Your task to perform on an android device: change the clock display to analog Image 0: 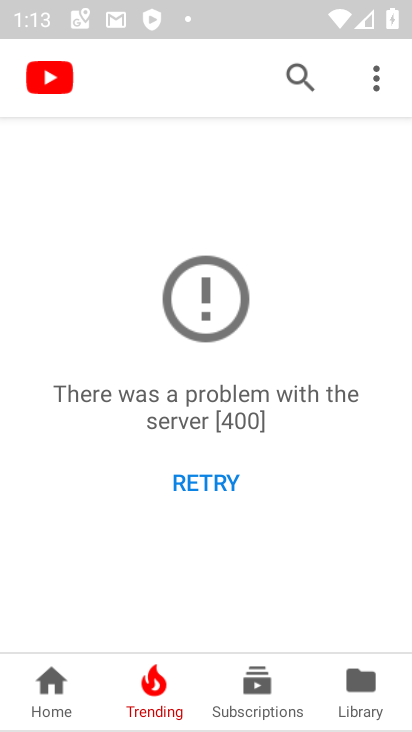
Step 0: press home button
Your task to perform on an android device: change the clock display to analog Image 1: 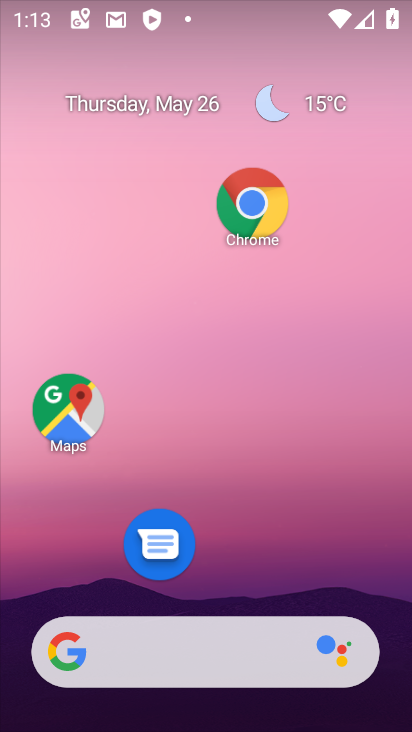
Step 1: drag from (167, 710) to (177, 217)
Your task to perform on an android device: change the clock display to analog Image 2: 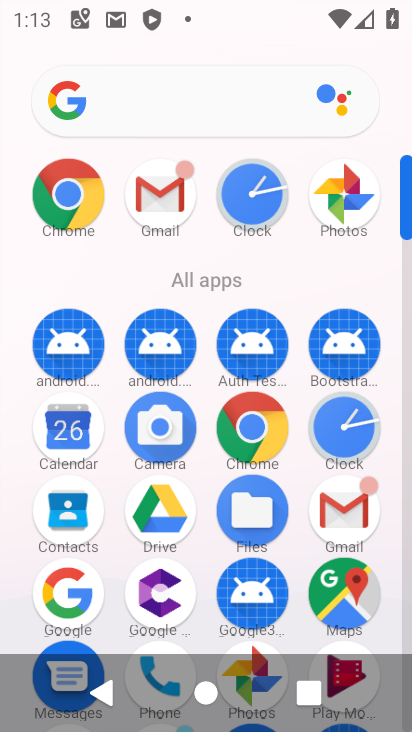
Step 2: click (246, 213)
Your task to perform on an android device: change the clock display to analog Image 3: 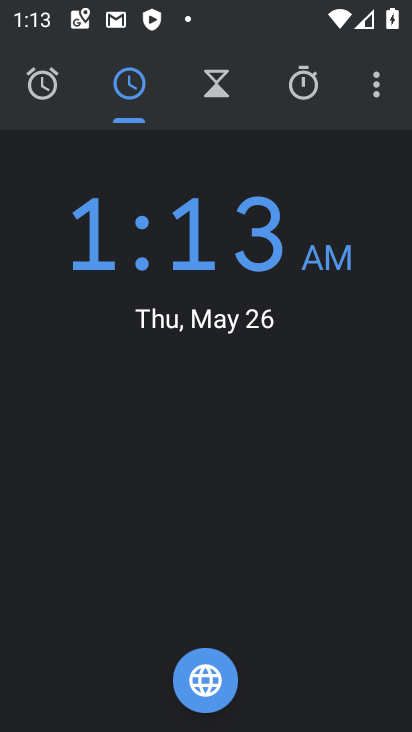
Step 3: click (367, 76)
Your task to perform on an android device: change the clock display to analog Image 4: 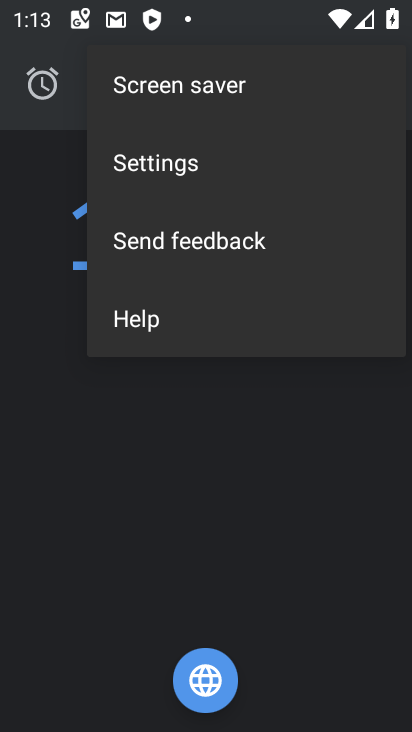
Step 4: click (170, 164)
Your task to perform on an android device: change the clock display to analog Image 5: 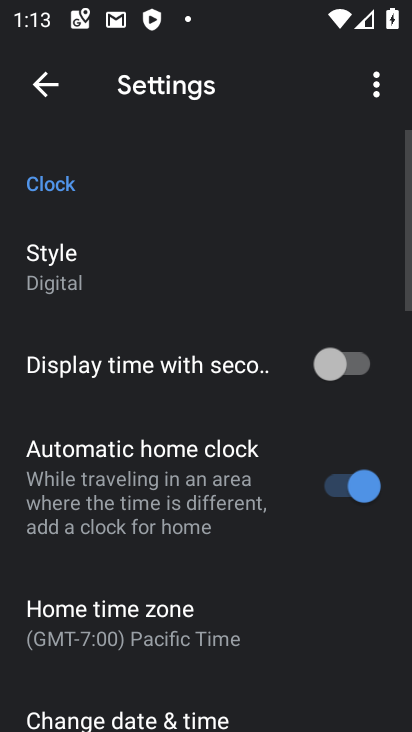
Step 5: click (81, 283)
Your task to perform on an android device: change the clock display to analog Image 6: 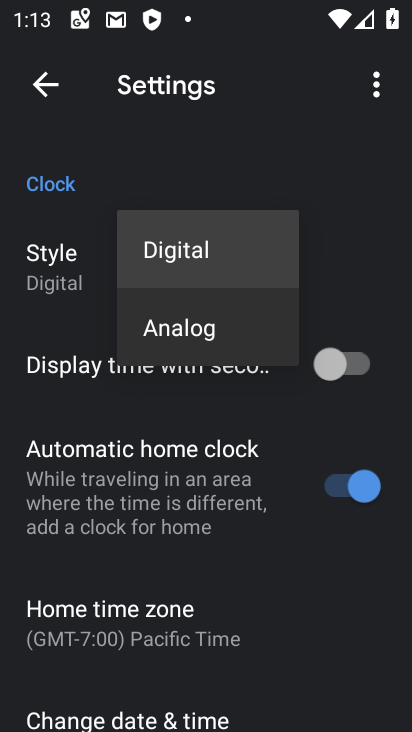
Step 6: click (195, 342)
Your task to perform on an android device: change the clock display to analog Image 7: 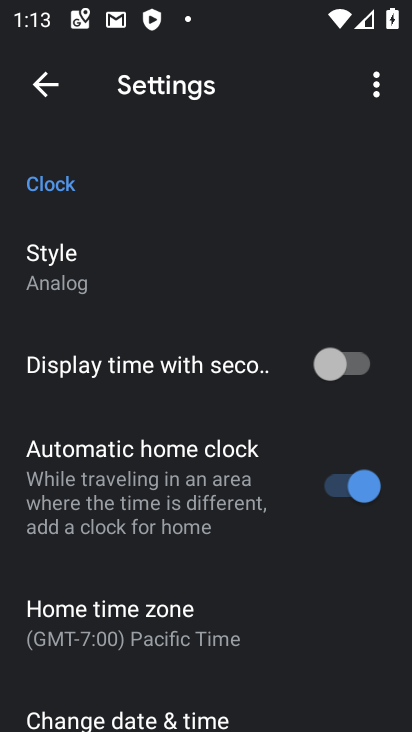
Step 7: task complete